Your task to perform on an android device: toggle javascript in the chrome app Image 0: 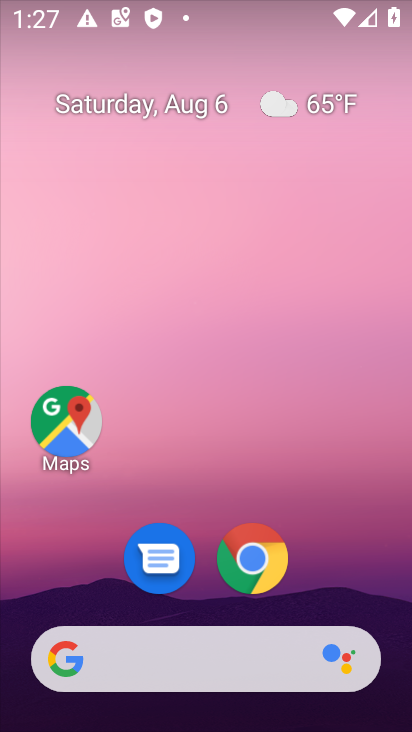
Step 0: click (276, 588)
Your task to perform on an android device: toggle javascript in the chrome app Image 1: 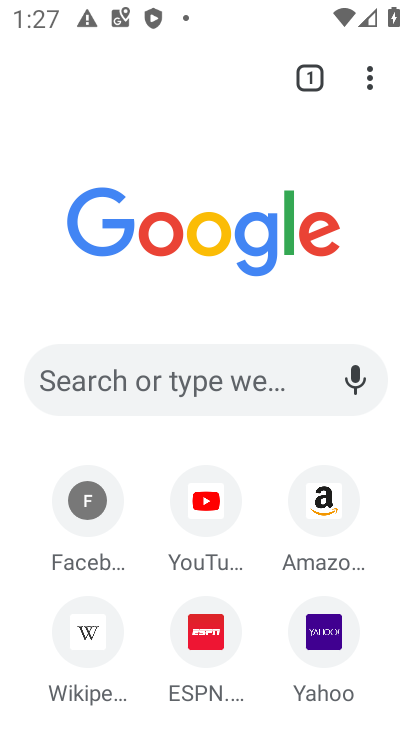
Step 1: drag from (364, 78) to (117, 648)
Your task to perform on an android device: toggle javascript in the chrome app Image 2: 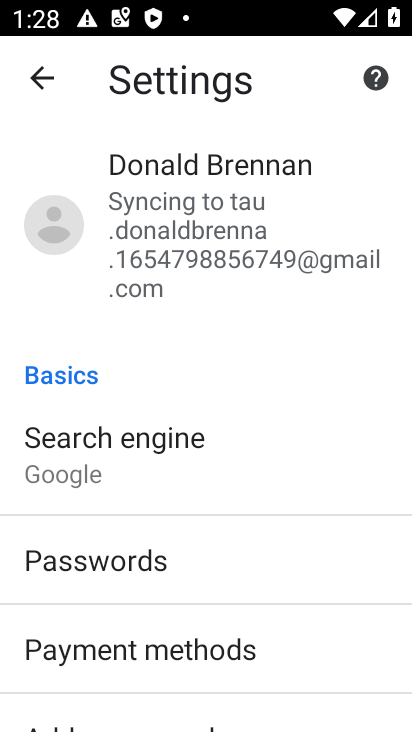
Step 2: drag from (153, 627) to (151, 134)
Your task to perform on an android device: toggle javascript in the chrome app Image 3: 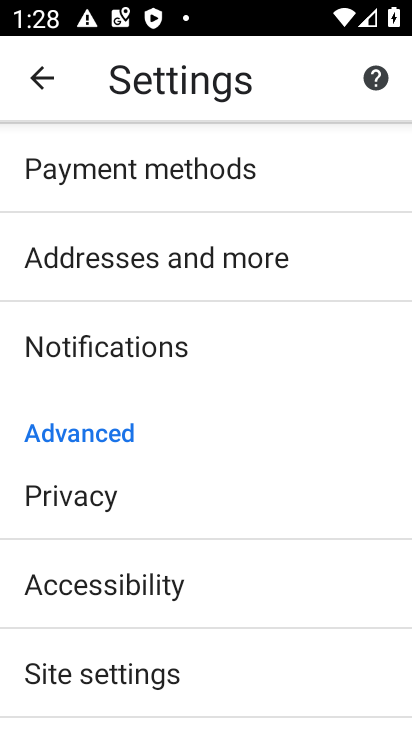
Step 3: click (113, 677)
Your task to perform on an android device: toggle javascript in the chrome app Image 4: 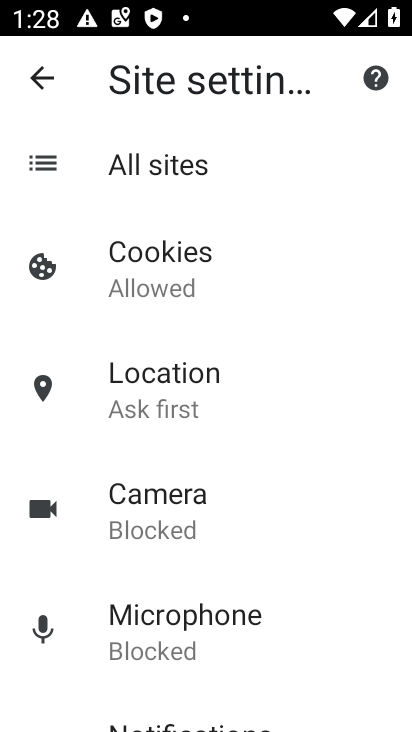
Step 4: drag from (227, 544) to (210, 178)
Your task to perform on an android device: toggle javascript in the chrome app Image 5: 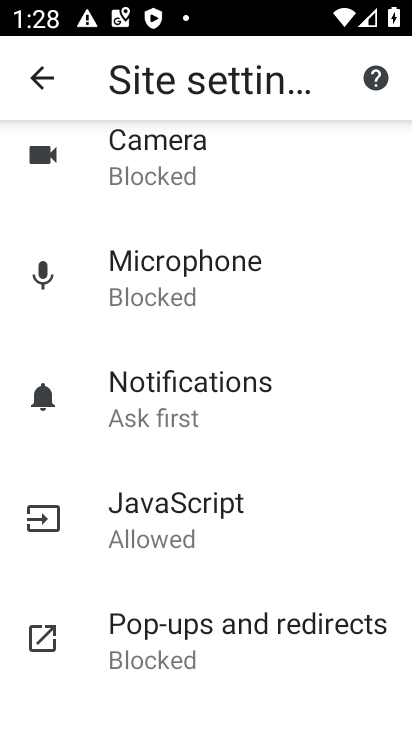
Step 5: click (157, 538)
Your task to perform on an android device: toggle javascript in the chrome app Image 6: 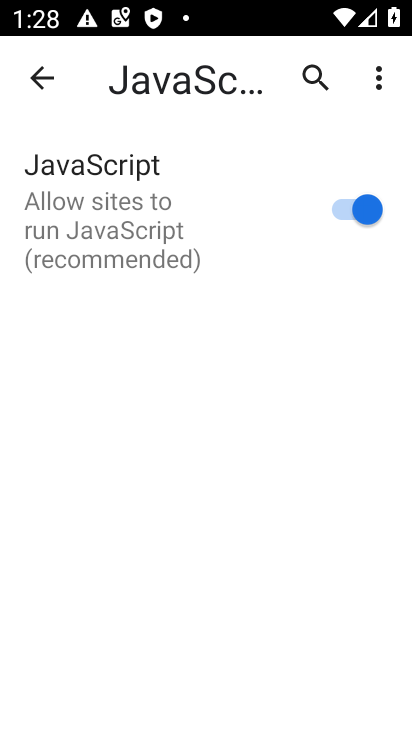
Step 6: click (350, 208)
Your task to perform on an android device: toggle javascript in the chrome app Image 7: 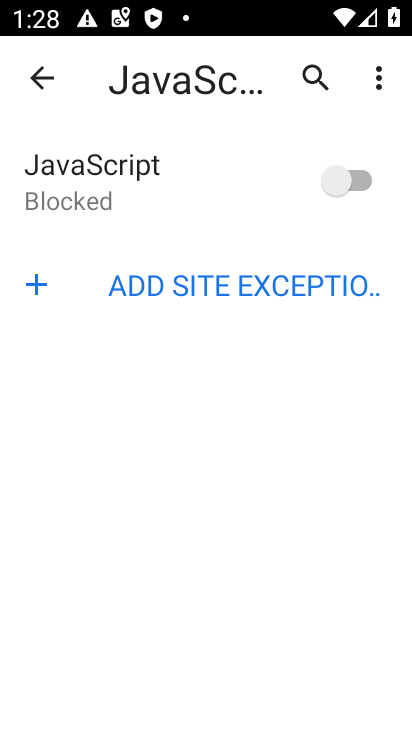
Step 7: task complete